Your task to perform on an android device: Turn on the flashlight Image 0: 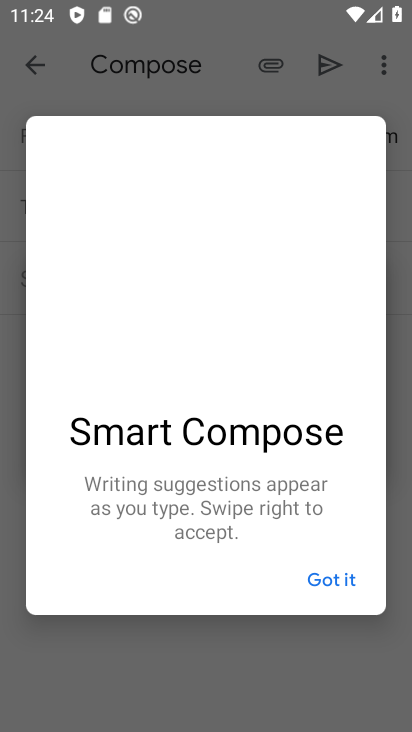
Step 0: press home button
Your task to perform on an android device: Turn on the flashlight Image 1: 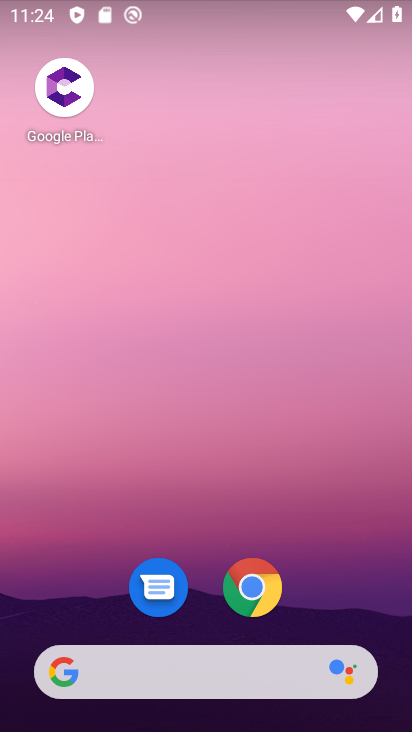
Step 1: drag from (198, 617) to (159, 0)
Your task to perform on an android device: Turn on the flashlight Image 2: 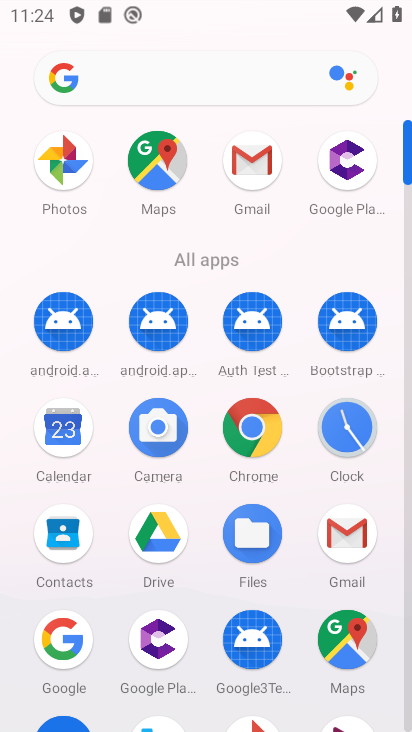
Step 2: drag from (292, 590) to (251, 212)
Your task to perform on an android device: Turn on the flashlight Image 3: 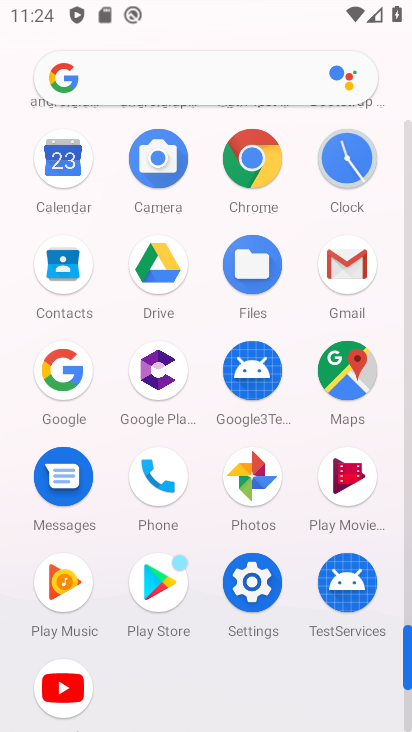
Step 3: click (237, 603)
Your task to perform on an android device: Turn on the flashlight Image 4: 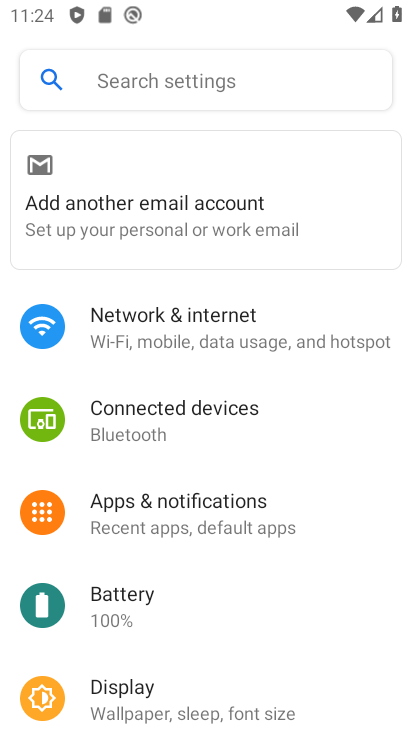
Step 4: task complete